Your task to perform on an android device: Open accessibility settings Image 0: 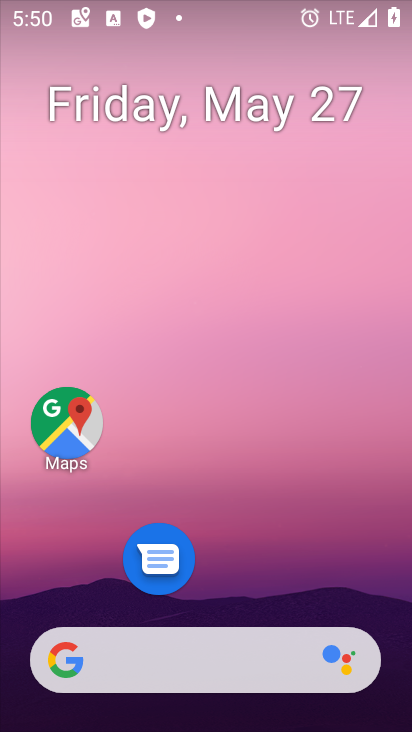
Step 0: drag from (302, 660) to (403, 139)
Your task to perform on an android device: Open accessibility settings Image 1: 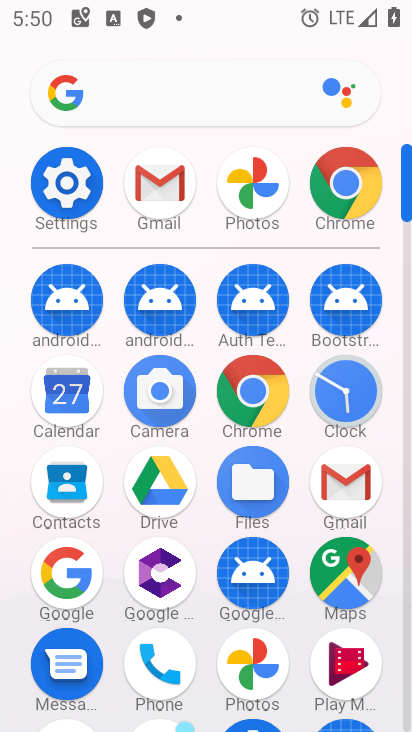
Step 1: click (82, 188)
Your task to perform on an android device: Open accessibility settings Image 2: 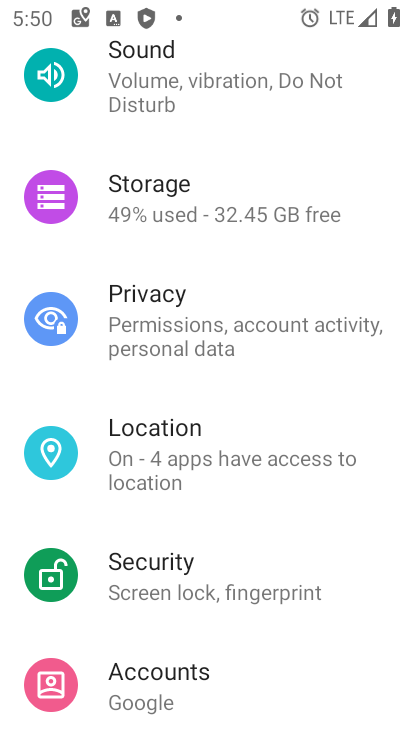
Step 2: drag from (213, 670) to (246, 95)
Your task to perform on an android device: Open accessibility settings Image 3: 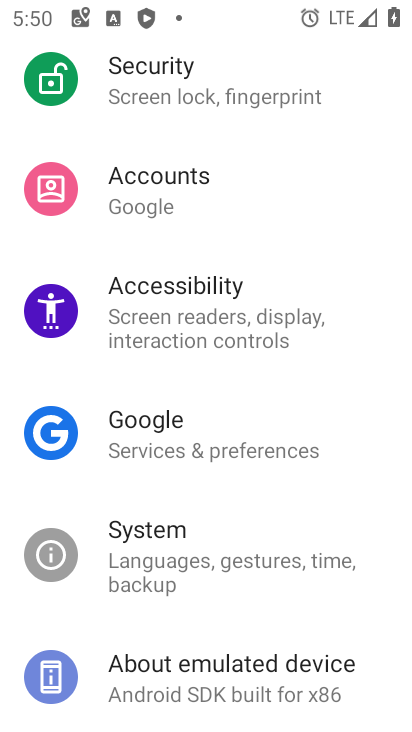
Step 3: click (176, 333)
Your task to perform on an android device: Open accessibility settings Image 4: 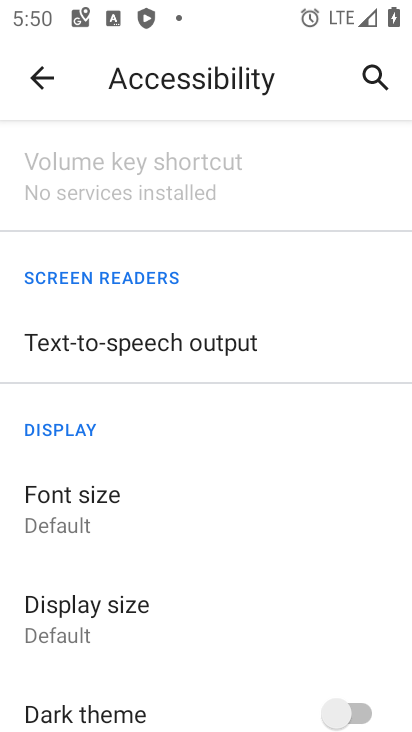
Step 4: task complete